Your task to perform on an android device: open the mobile data screen to see how much data has been used Image 0: 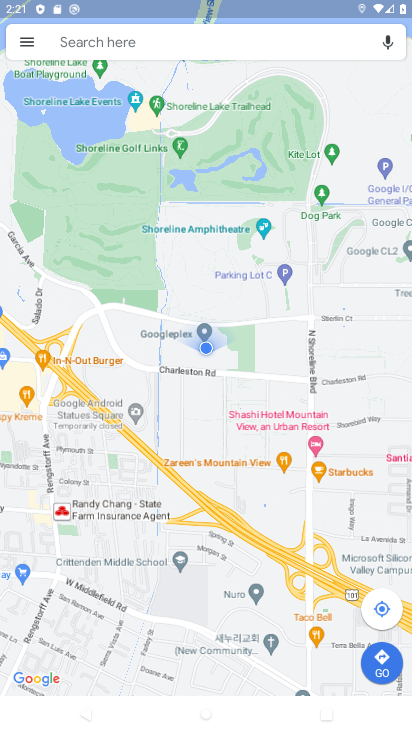
Step 0: press home button
Your task to perform on an android device: open the mobile data screen to see how much data has been used Image 1: 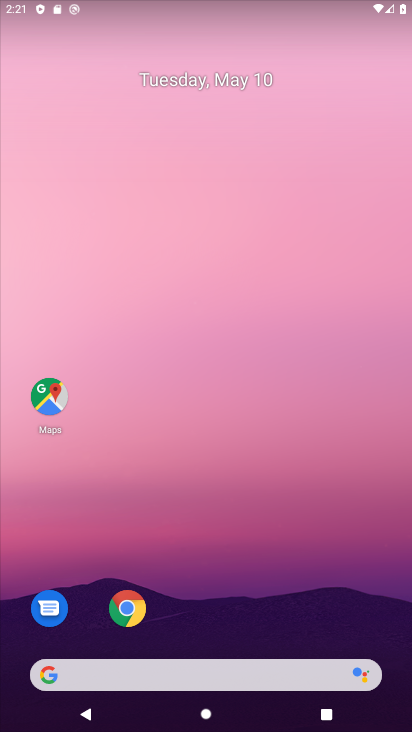
Step 1: drag from (329, 611) to (322, 13)
Your task to perform on an android device: open the mobile data screen to see how much data has been used Image 2: 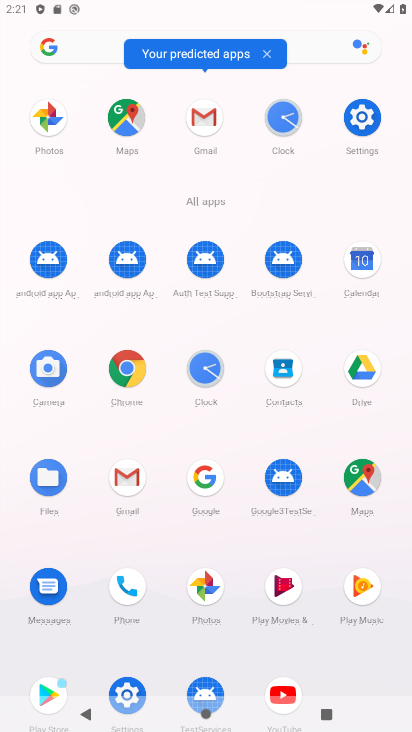
Step 2: click (364, 125)
Your task to perform on an android device: open the mobile data screen to see how much data has been used Image 3: 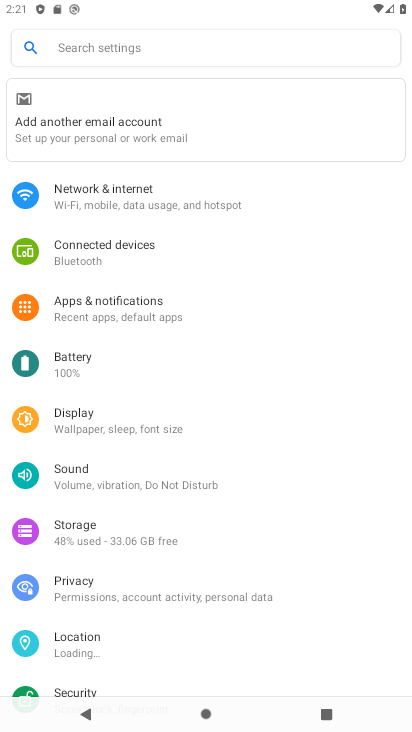
Step 3: click (127, 202)
Your task to perform on an android device: open the mobile data screen to see how much data has been used Image 4: 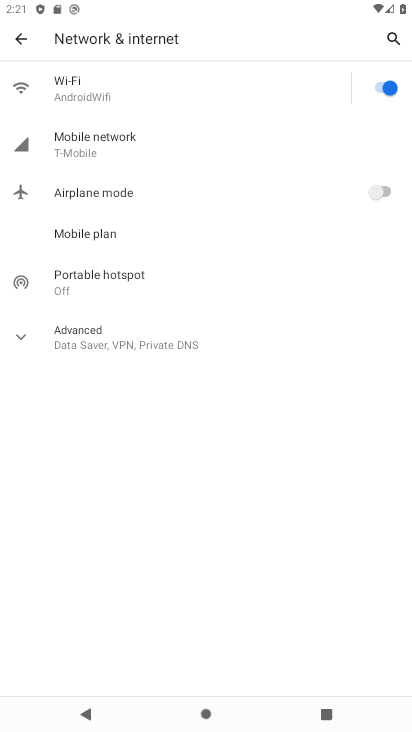
Step 4: click (95, 148)
Your task to perform on an android device: open the mobile data screen to see how much data has been used Image 5: 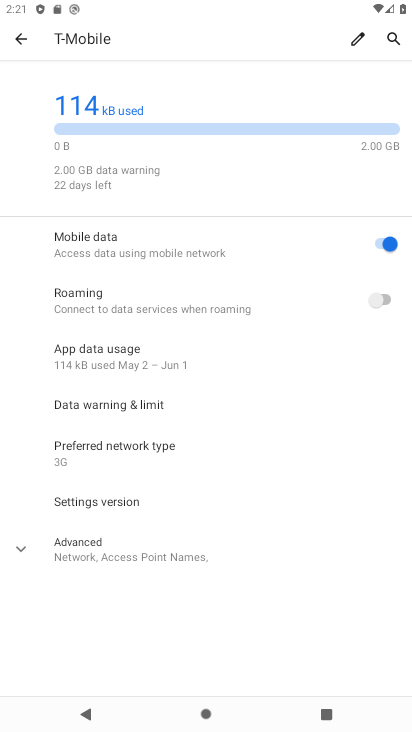
Step 5: click (99, 352)
Your task to perform on an android device: open the mobile data screen to see how much data has been used Image 6: 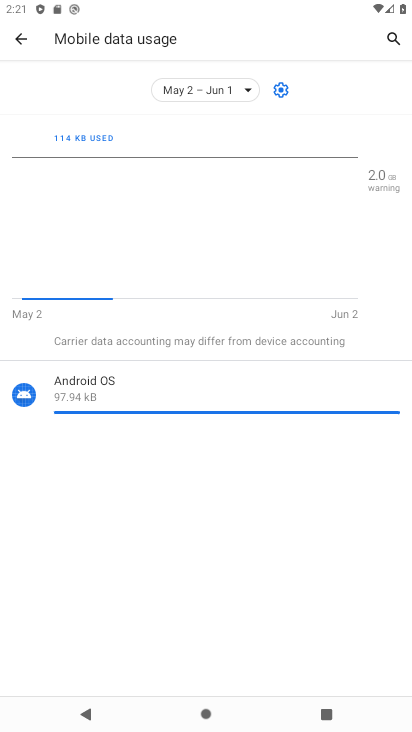
Step 6: task complete